Your task to perform on an android device: Add bose soundlink mini to the cart on costco.com, then select checkout. Image 0: 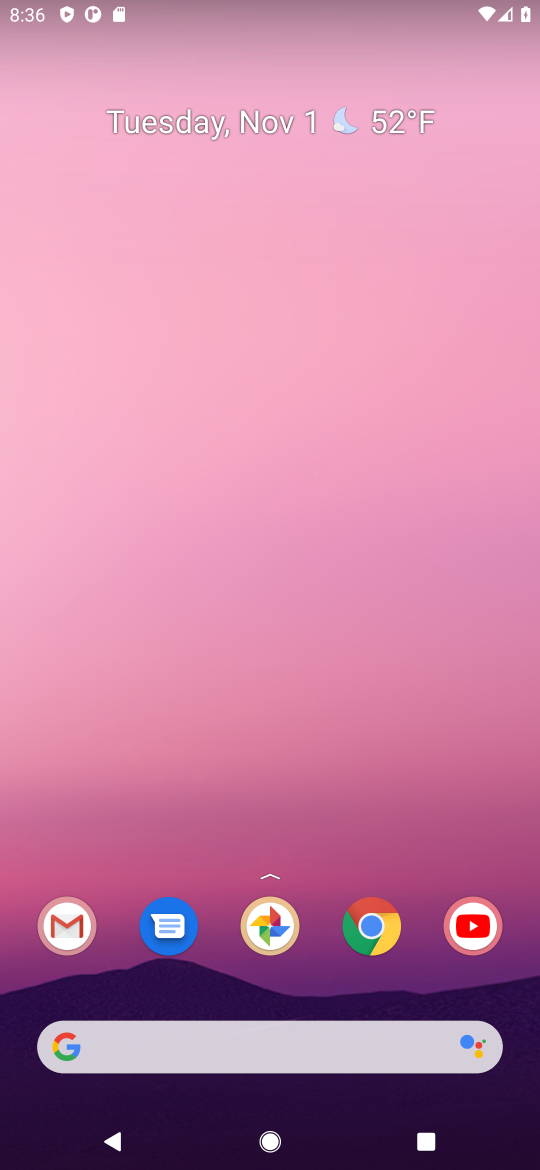
Step 0: click (353, 942)
Your task to perform on an android device: Add bose soundlink mini to the cart on costco.com, then select checkout. Image 1: 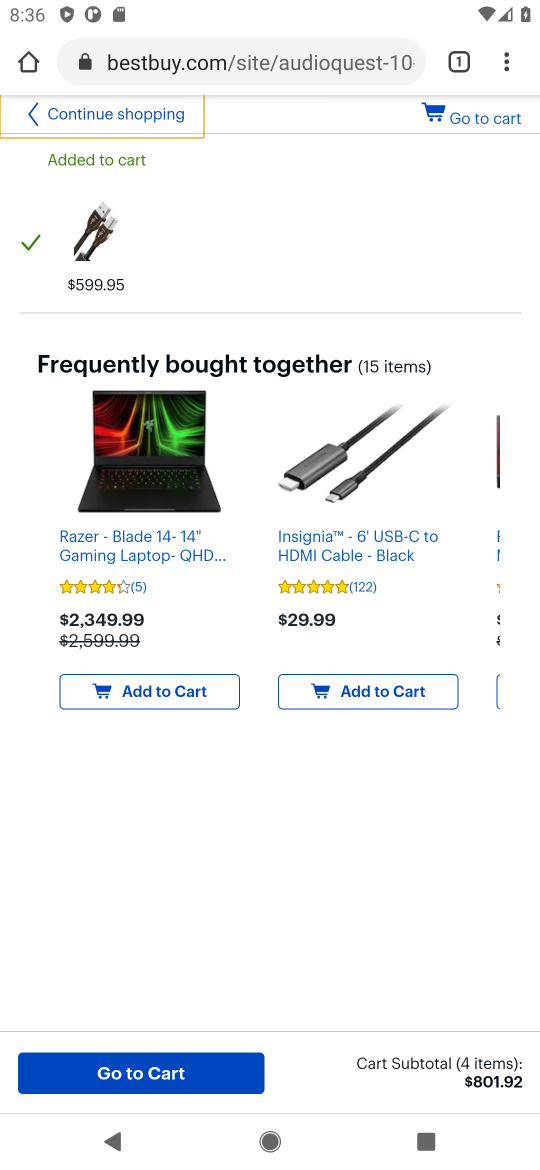
Step 1: click (148, 51)
Your task to perform on an android device: Add bose soundlink mini to the cart on costco.com, then select checkout. Image 2: 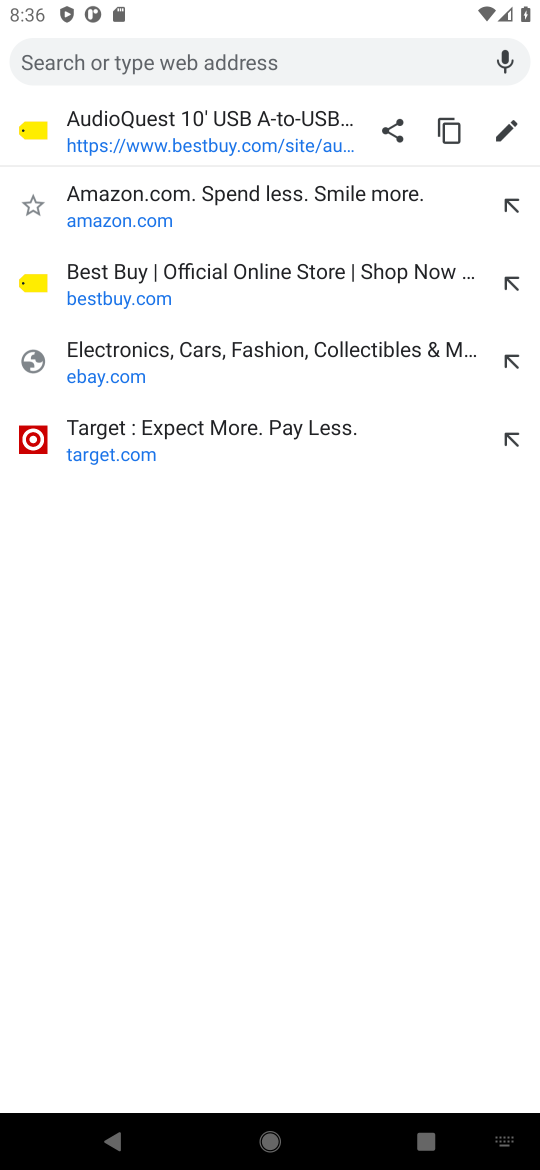
Step 2: type "costco.com"
Your task to perform on an android device: Add bose soundlink mini to the cart on costco.com, then select checkout. Image 3: 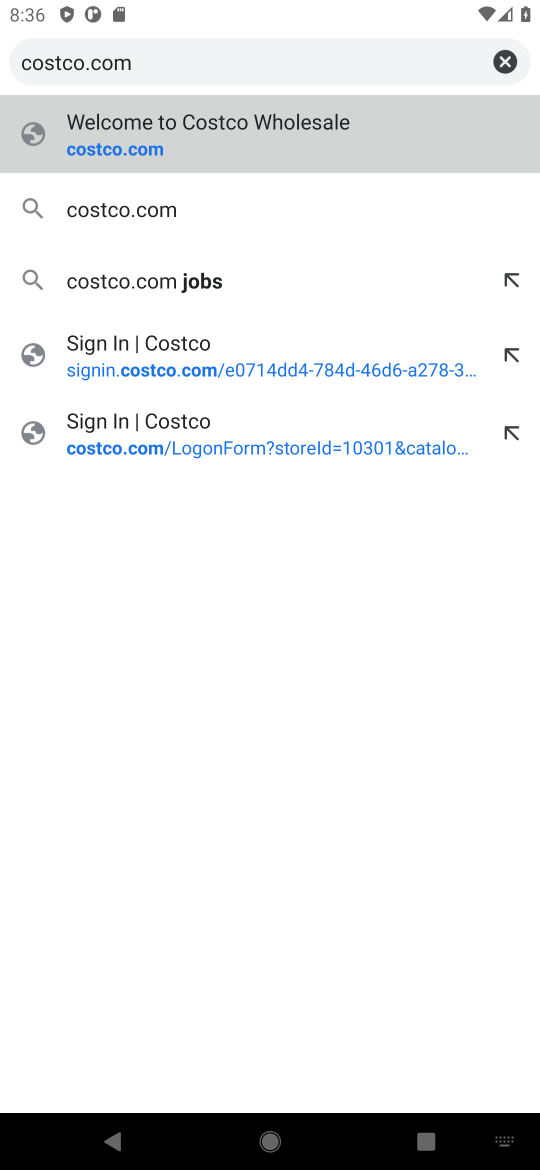
Step 3: type ""
Your task to perform on an android device: Add bose soundlink mini to the cart on costco.com, then select checkout. Image 4: 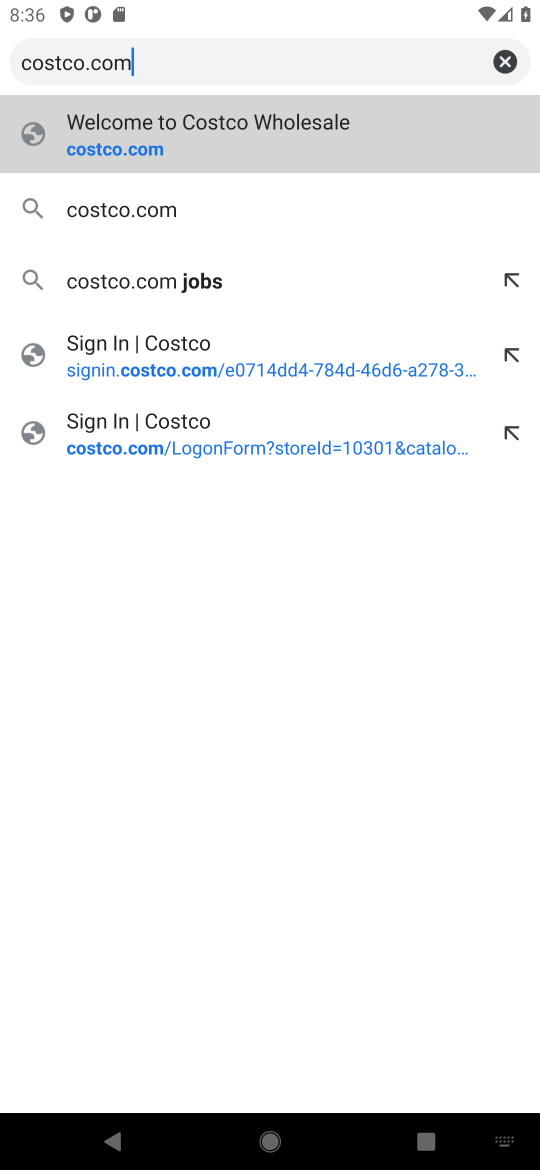
Step 4: click (114, 145)
Your task to perform on an android device: Add bose soundlink mini to the cart on costco.com, then select checkout. Image 5: 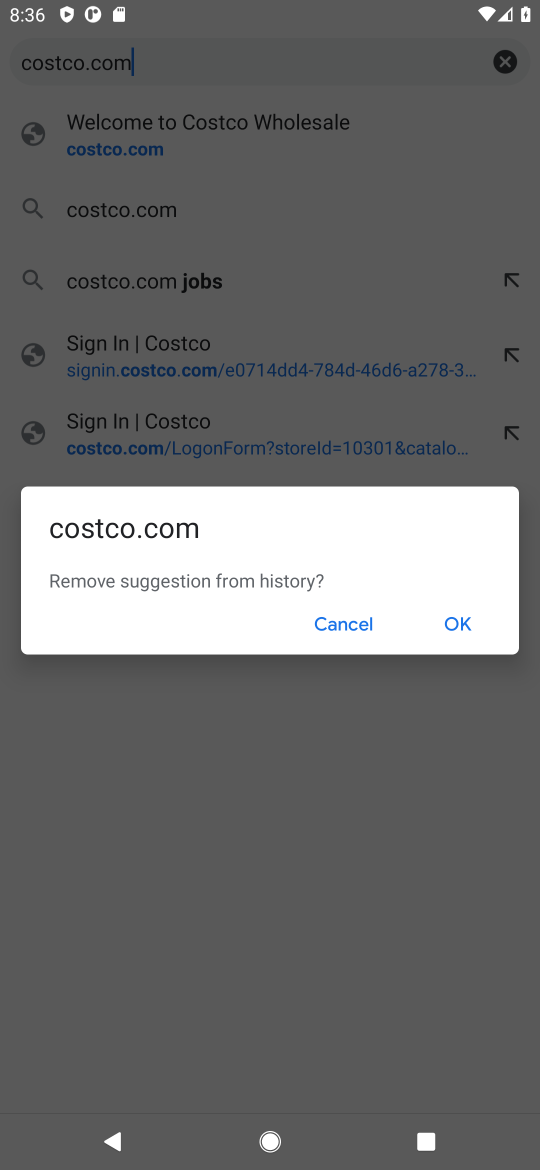
Step 5: click (452, 624)
Your task to perform on an android device: Add bose soundlink mini to the cart on costco.com, then select checkout. Image 6: 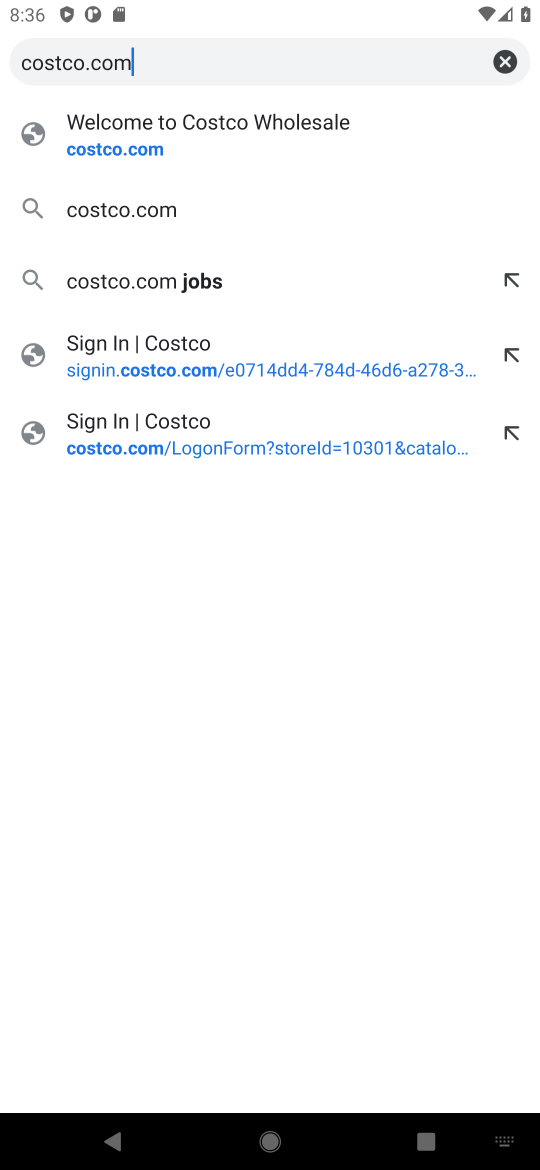
Step 6: click (123, 422)
Your task to perform on an android device: Add bose soundlink mini to the cart on costco.com, then select checkout. Image 7: 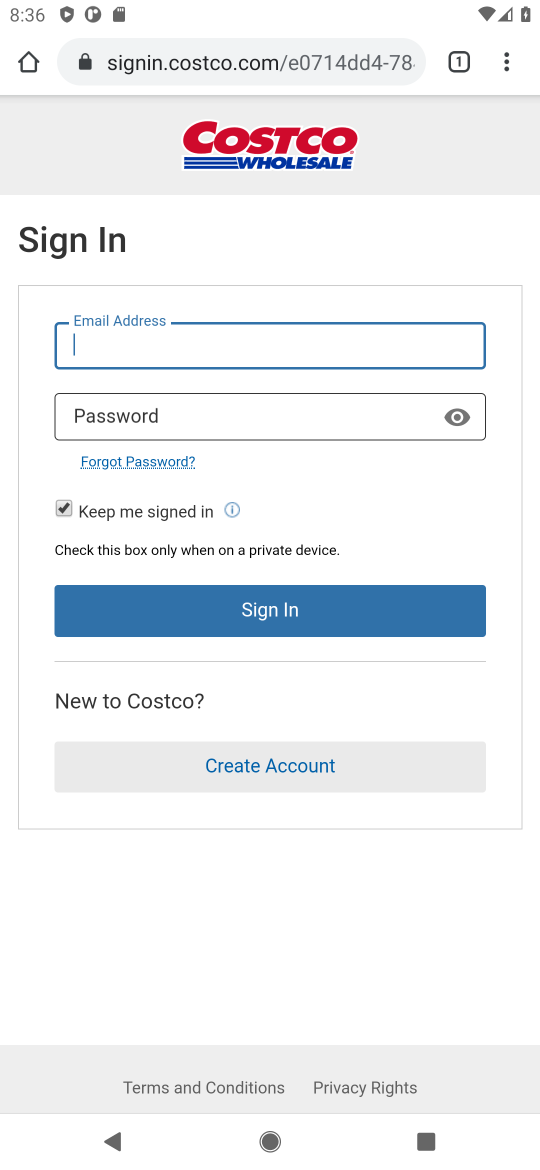
Step 7: press back button
Your task to perform on an android device: Add bose soundlink mini to the cart on costco.com, then select checkout. Image 8: 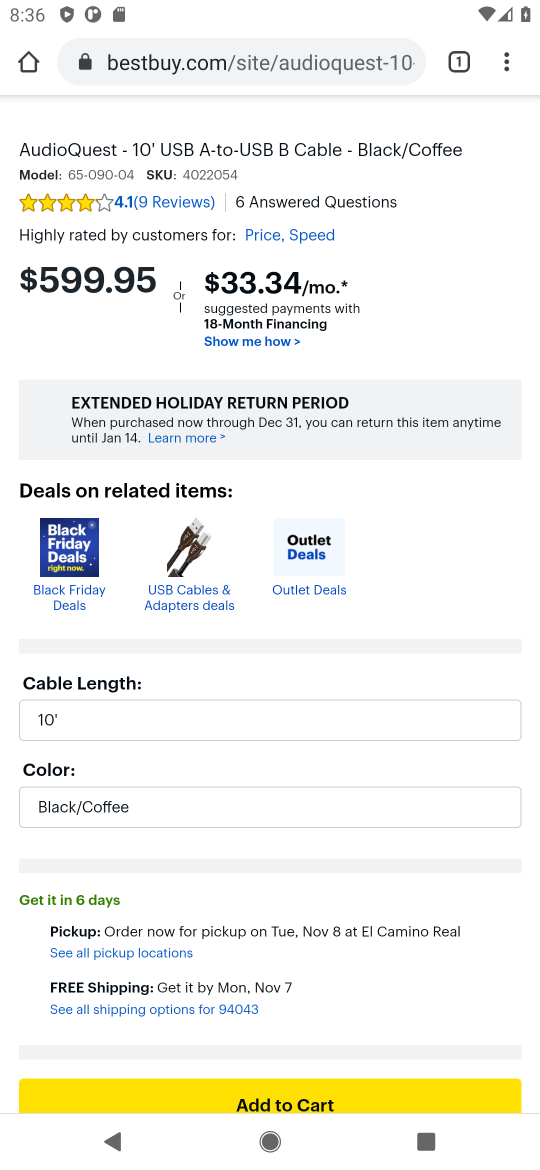
Step 8: drag from (302, 711) to (311, 30)
Your task to perform on an android device: Add bose soundlink mini to the cart on costco.com, then select checkout. Image 9: 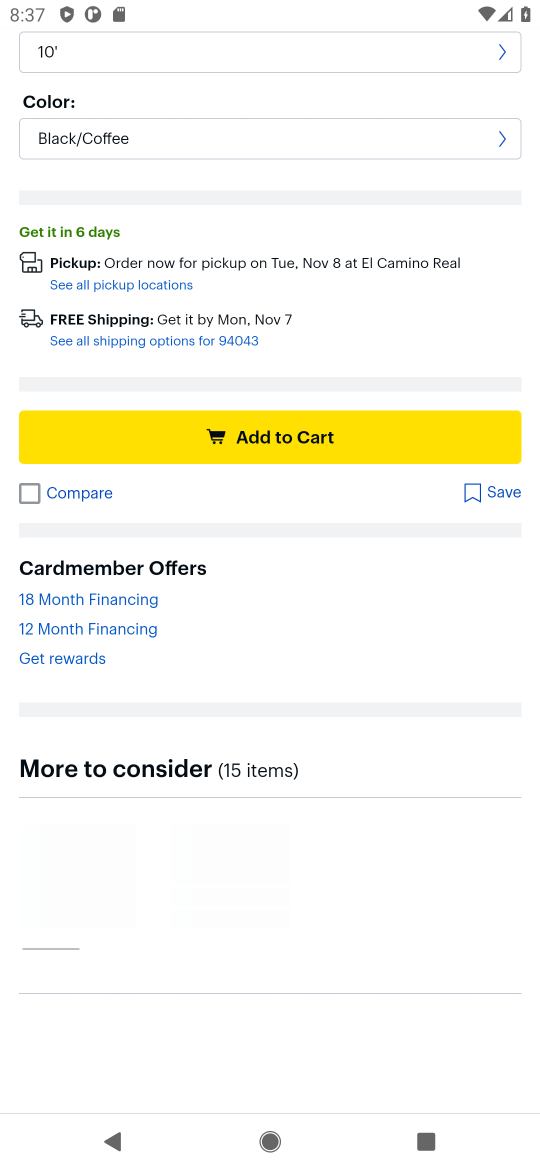
Step 9: drag from (332, 205) to (314, 903)
Your task to perform on an android device: Add bose soundlink mini to the cart on costco.com, then select checkout. Image 10: 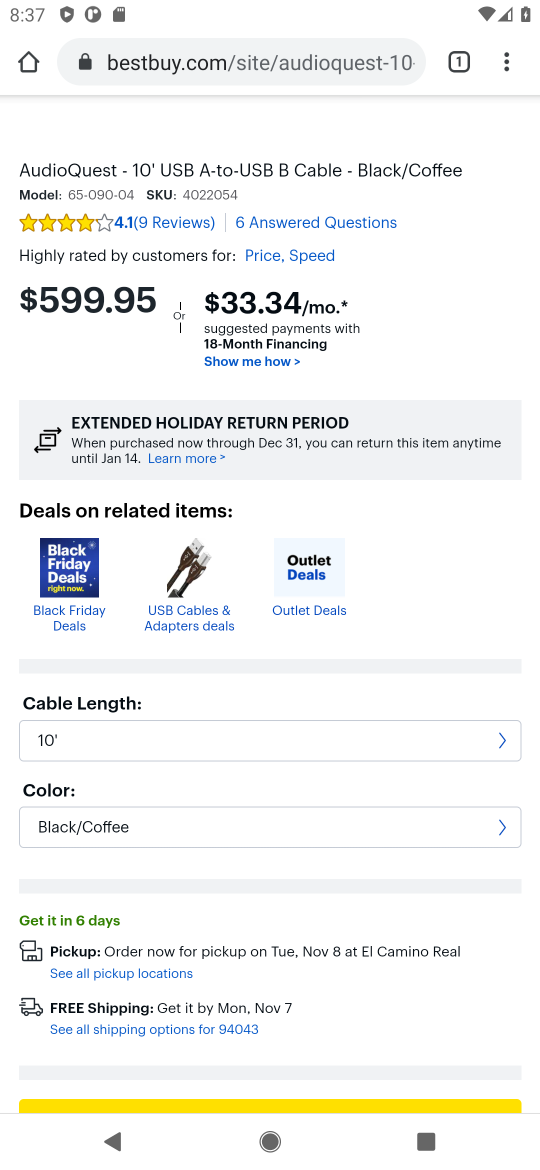
Step 10: drag from (366, 409) to (276, 847)
Your task to perform on an android device: Add bose soundlink mini to the cart on costco.com, then select checkout. Image 11: 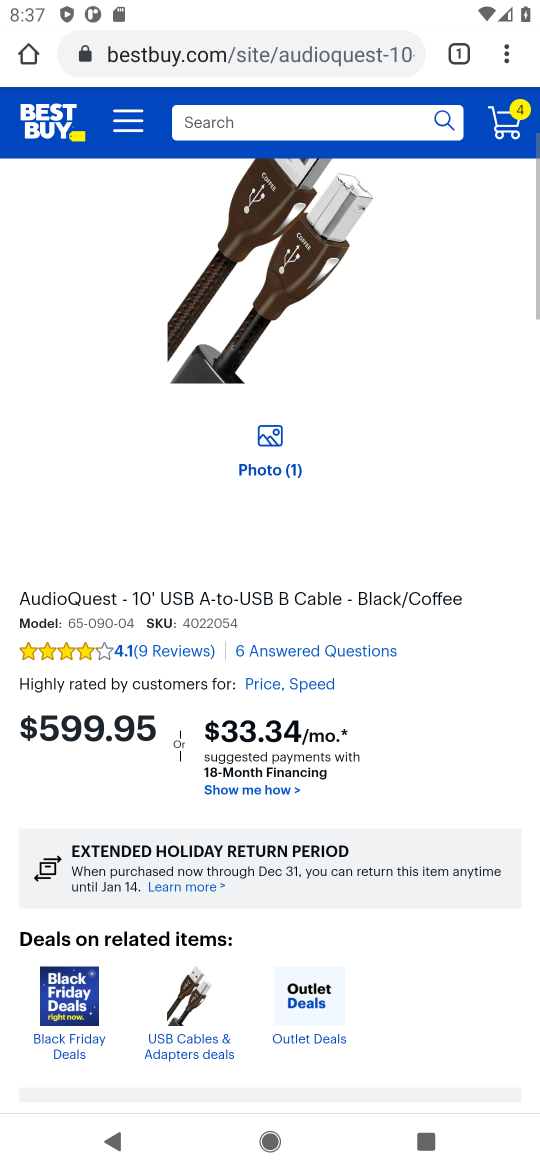
Step 11: drag from (232, 244) to (153, 867)
Your task to perform on an android device: Add bose soundlink mini to the cart on costco.com, then select checkout. Image 12: 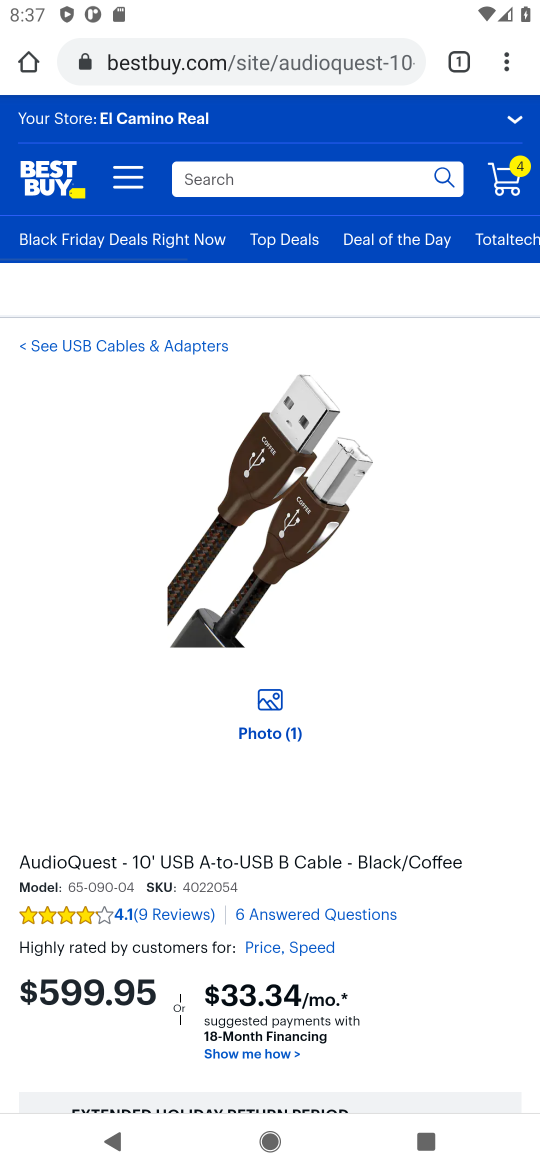
Step 12: click (312, 53)
Your task to perform on an android device: Add bose soundlink mini to the cart on costco.com, then select checkout. Image 13: 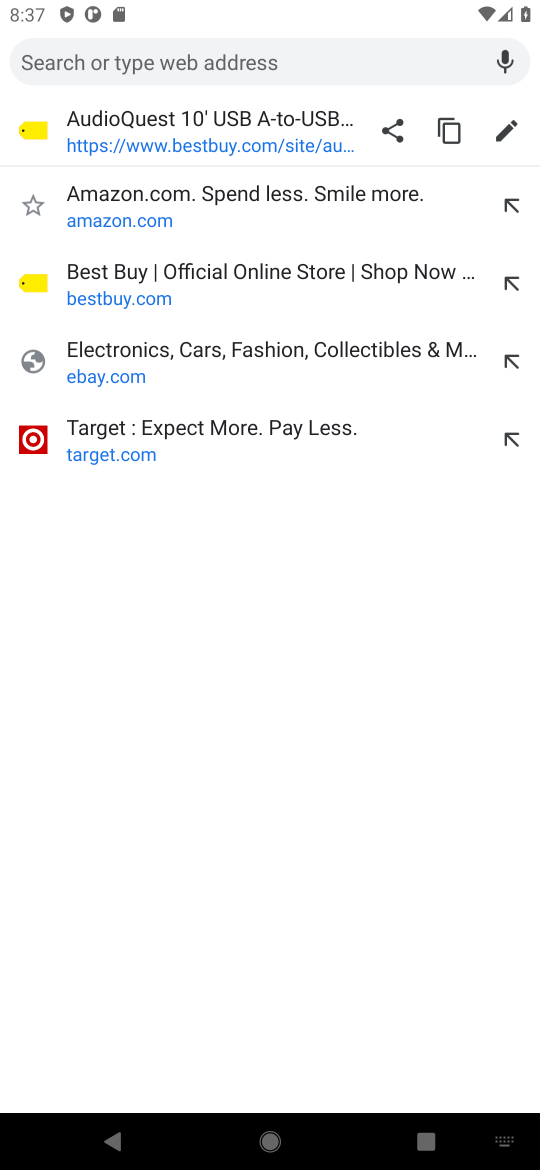
Step 13: type "costco"
Your task to perform on an android device: Add bose soundlink mini to the cart on costco.com, then select checkout. Image 14: 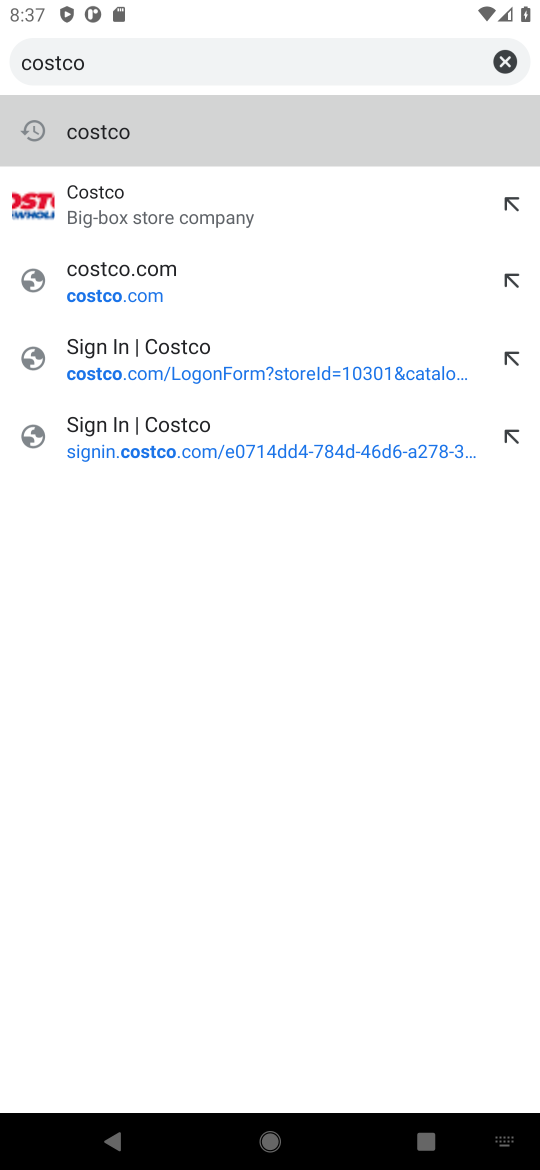
Step 14: type ""
Your task to perform on an android device: Add bose soundlink mini to the cart on costco.com, then select checkout. Image 15: 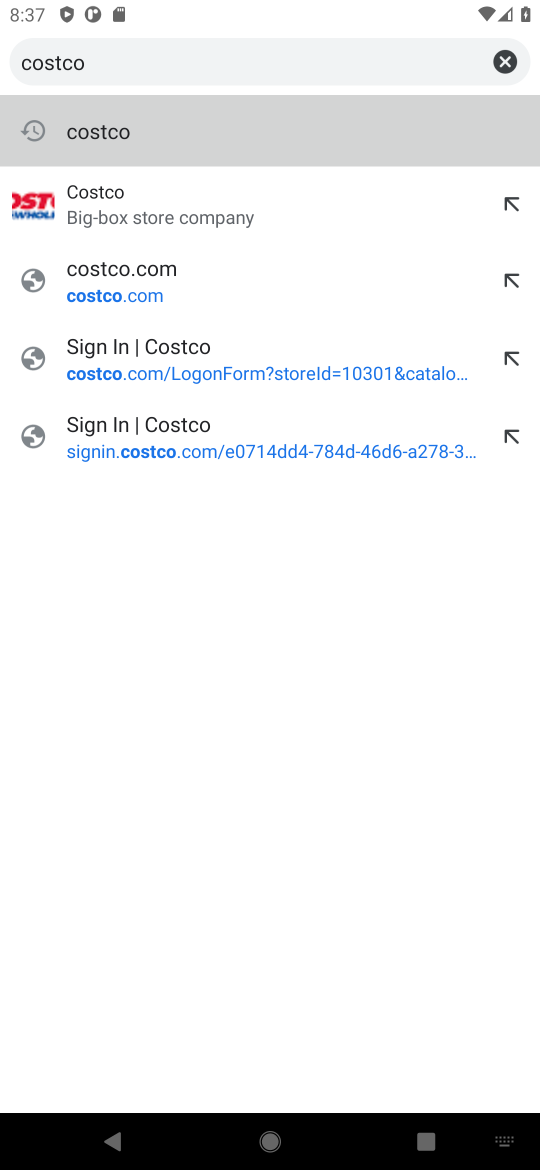
Step 15: click (120, 217)
Your task to perform on an android device: Add bose soundlink mini to the cart on costco.com, then select checkout. Image 16: 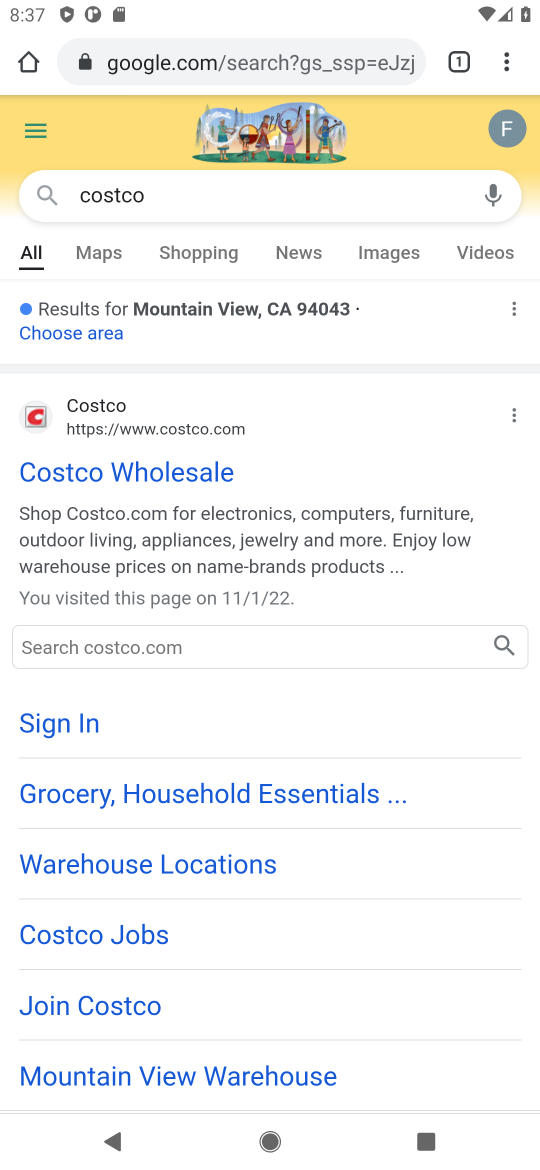
Step 16: click (139, 473)
Your task to perform on an android device: Add bose soundlink mini to the cart on costco.com, then select checkout. Image 17: 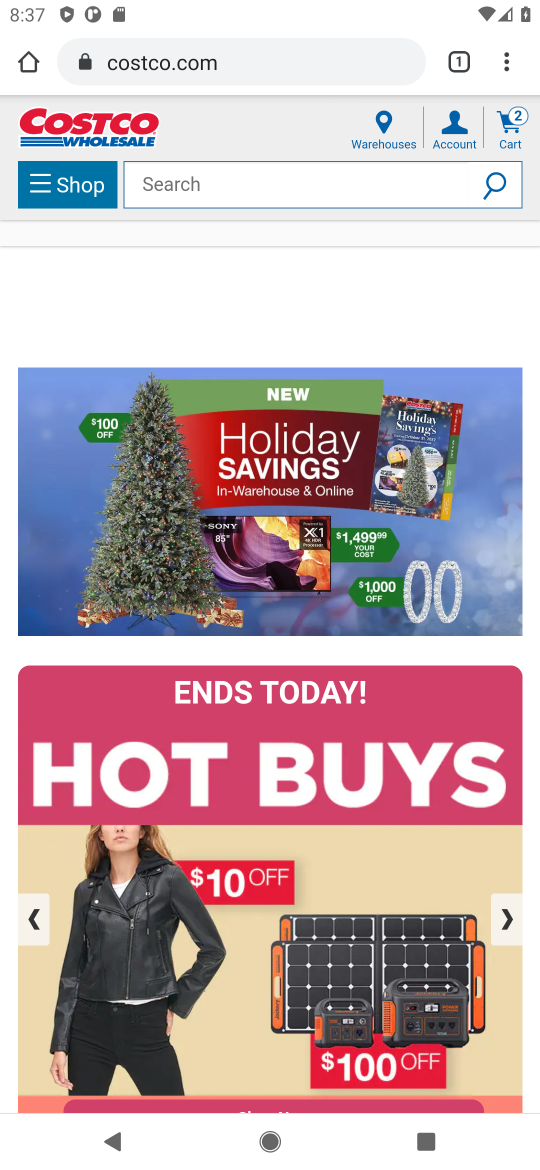
Step 17: click (233, 199)
Your task to perform on an android device: Add bose soundlink mini to the cart on costco.com, then select checkout. Image 18: 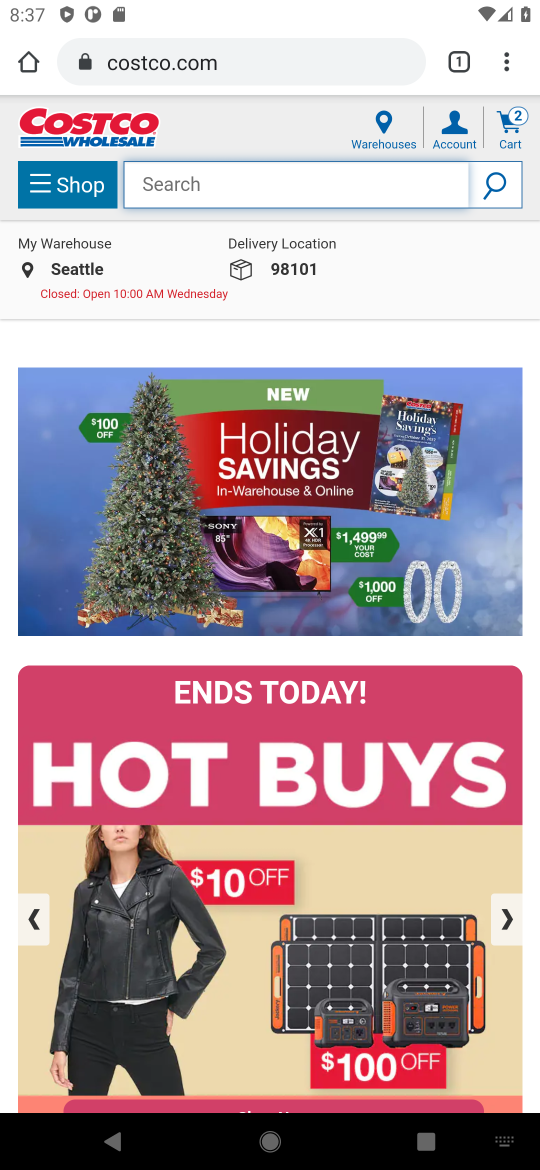
Step 18: type "bose soundlink mini"
Your task to perform on an android device: Add bose soundlink mini to the cart on costco.com, then select checkout. Image 19: 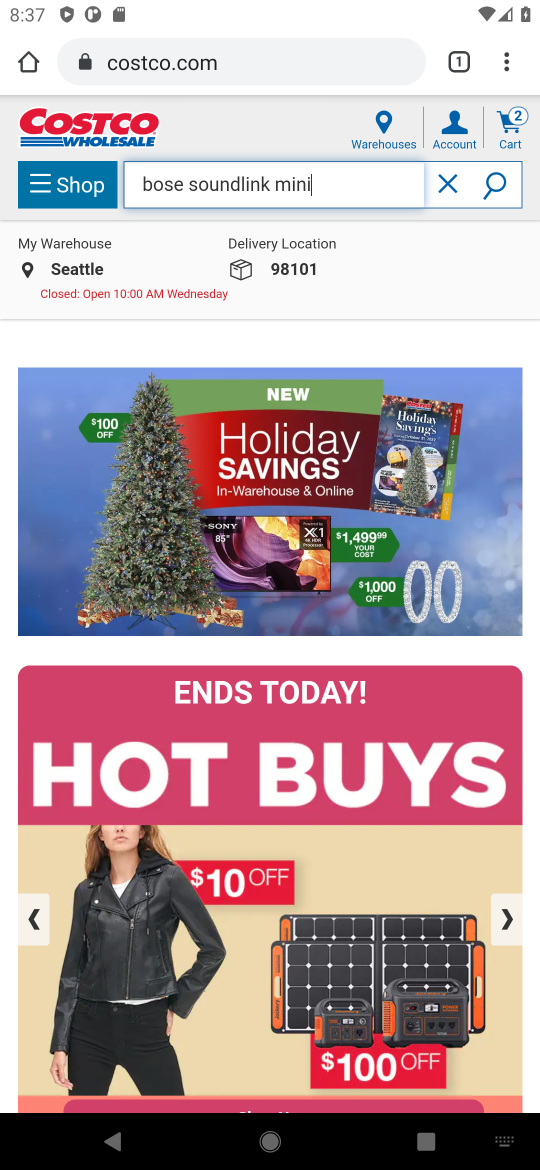
Step 19: type ""
Your task to perform on an android device: Add bose soundlink mini to the cart on costco.com, then select checkout. Image 20: 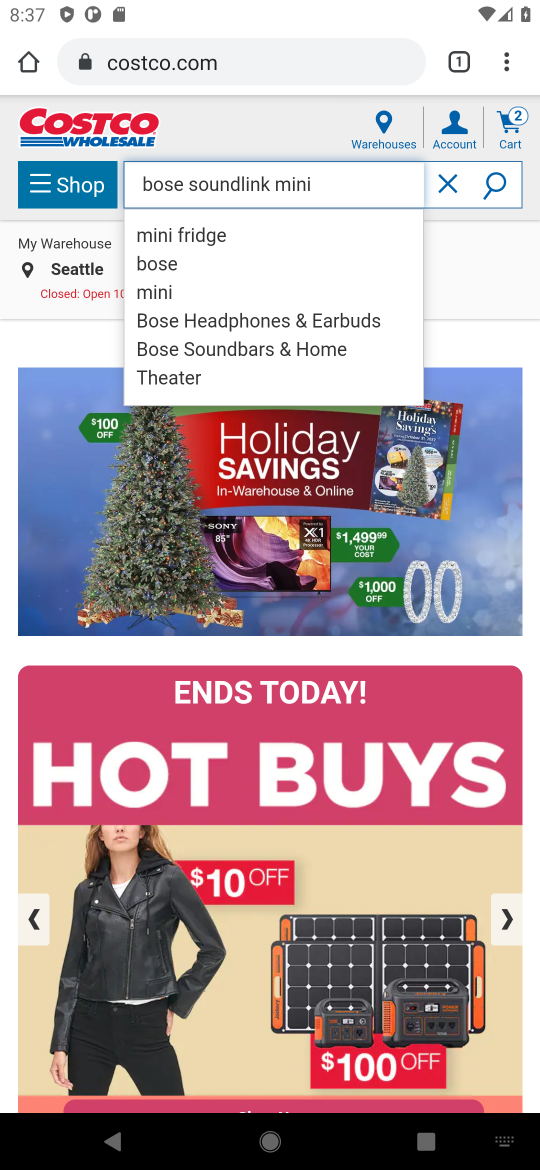
Step 20: click (210, 324)
Your task to perform on an android device: Add bose soundlink mini to the cart on costco.com, then select checkout. Image 21: 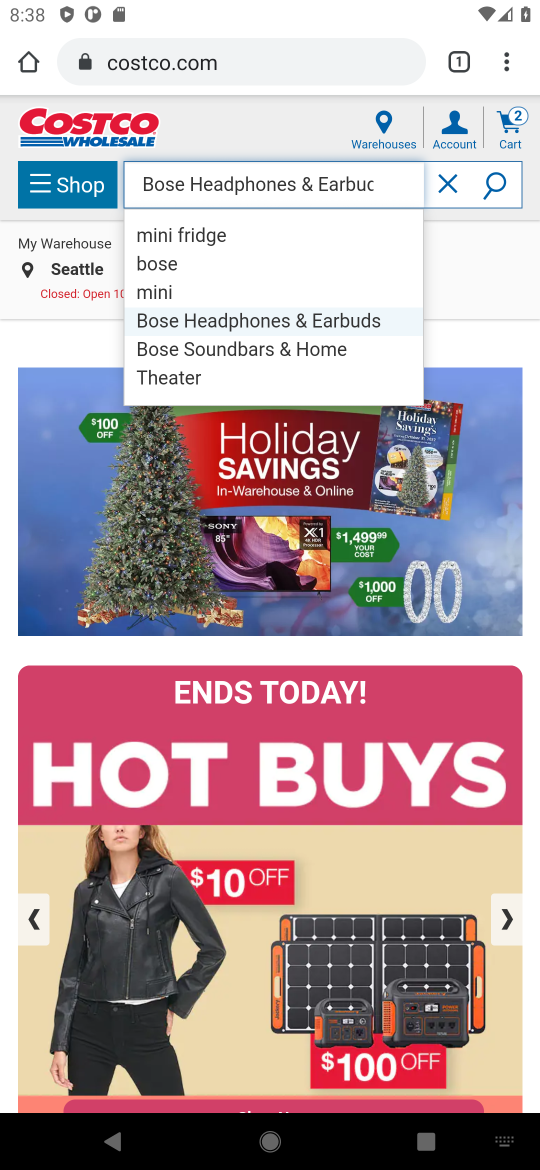
Step 21: click (204, 355)
Your task to perform on an android device: Add bose soundlink mini to the cart on costco.com, then select checkout. Image 22: 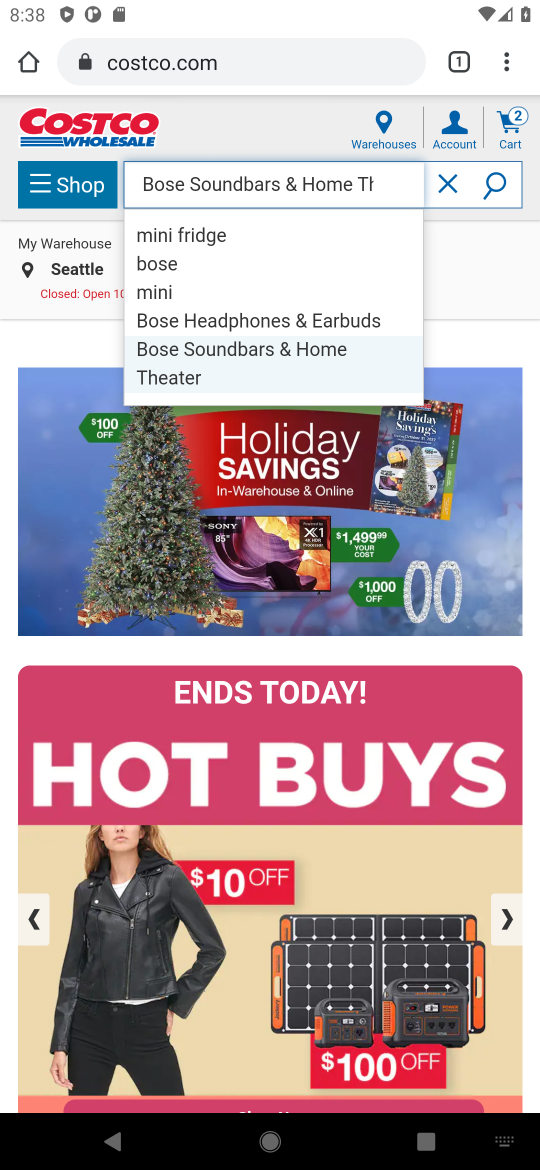
Step 22: click (205, 356)
Your task to perform on an android device: Add bose soundlink mini to the cart on costco.com, then select checkout. Image 23: 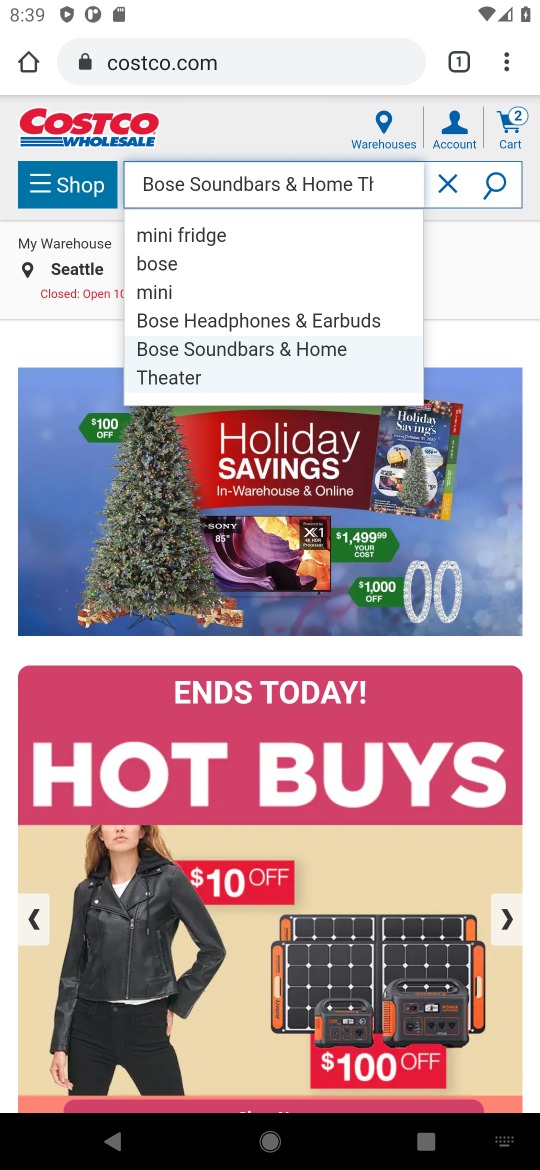
Step 23: click (234, 348)
Your task to perform on an android device: Add bose soundlink mini to the cart on costco.com, then select checkout. Image 24: 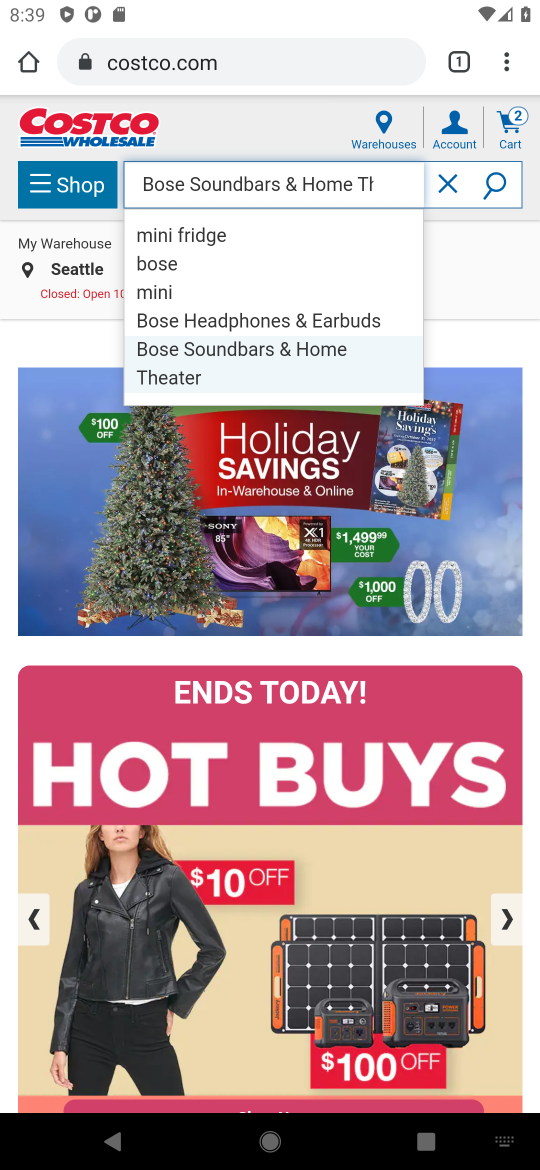
Step 24: click (503, 180)
Your task to perform on an android device: Add bose soundlink mini to the cart on costco.com, then select checkout. Image 25: 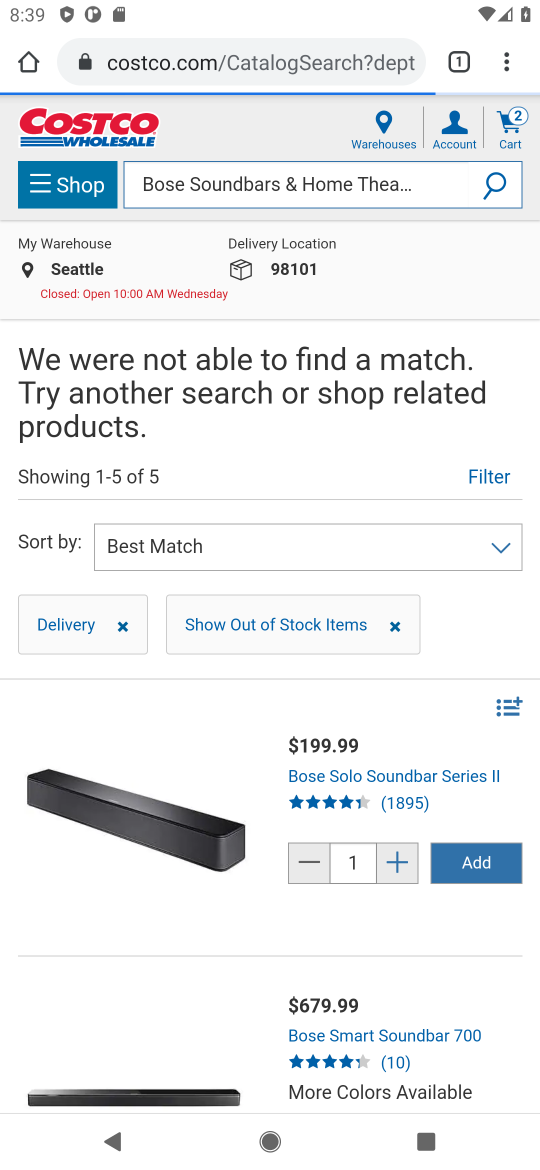
Step 25: drag from (211, 896) to (306, 143)
Your task to perform on an android device: Add bose soundlink mini to the cart on costco.com, then select checkout. Image 26: 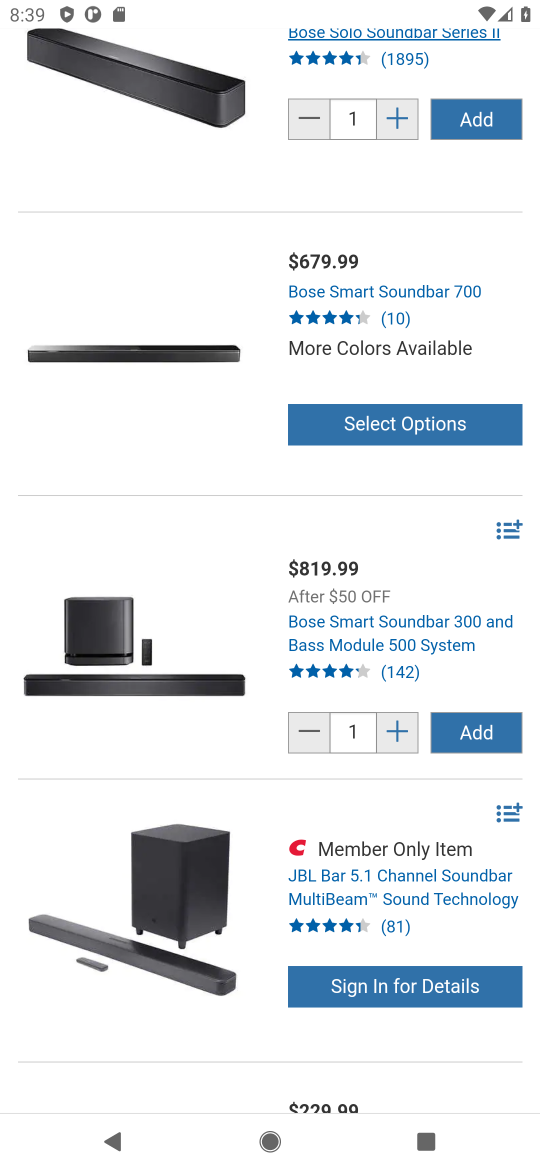
Step 26: drag from (226, 905) to (302, 331)
Your task to perform on an android device: Add bose soundlink mini to the cart on costco.com, then select checkout. Image 27: 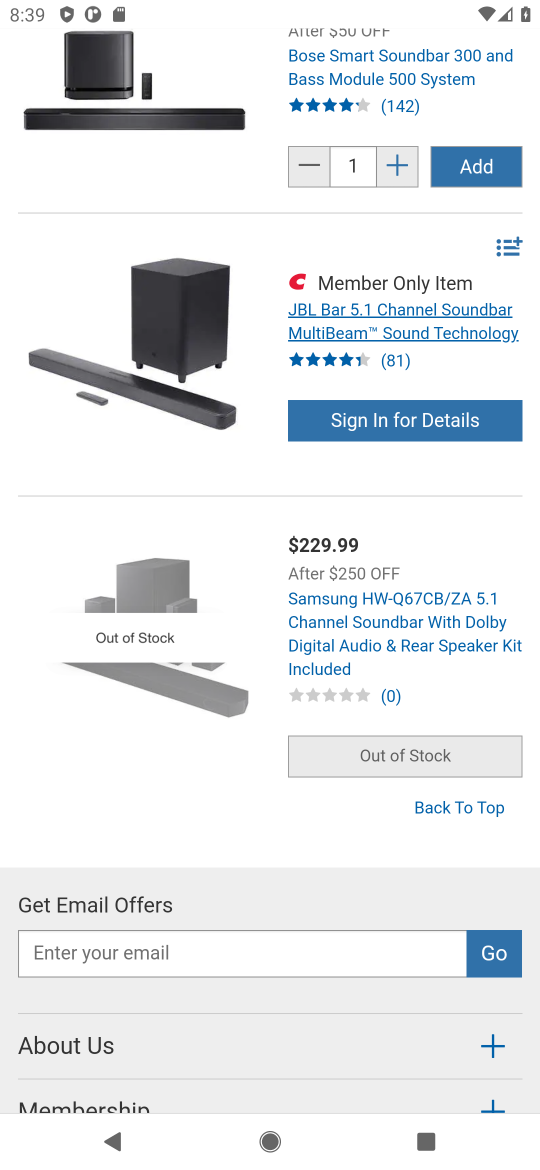
Step 27: drag from (302, 331) to (311, 858)
Your task to perform on an android device: Add bose soundlink mini to the cart on costco.com, then select checkout. Image 28: 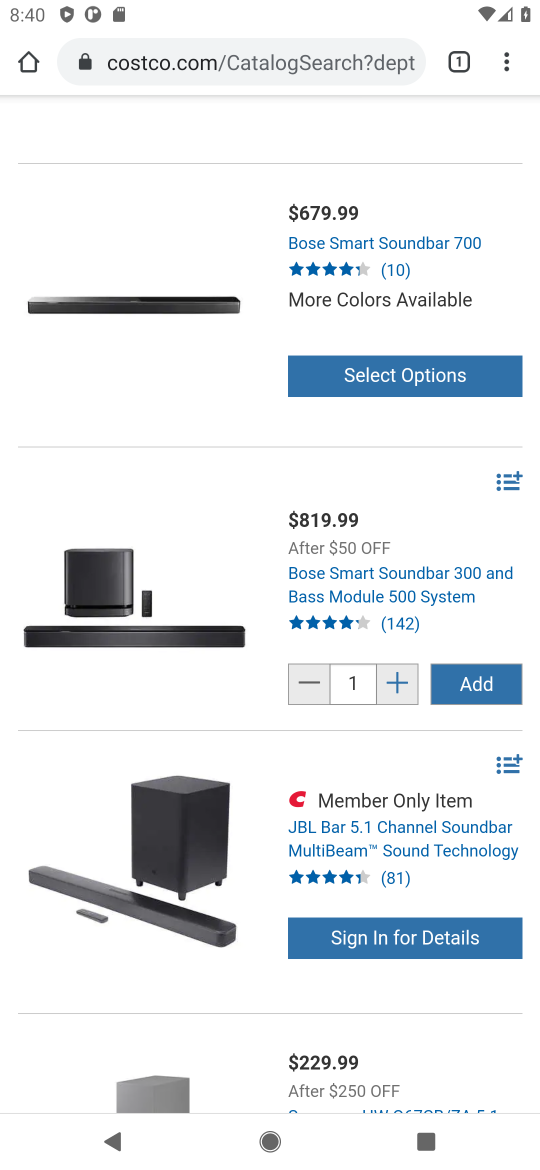
Step 28: click (320, 579)
Your task to perform on an android device: Add bose soundlink mini to the cart on costco.com, then select checkout. Image 29: 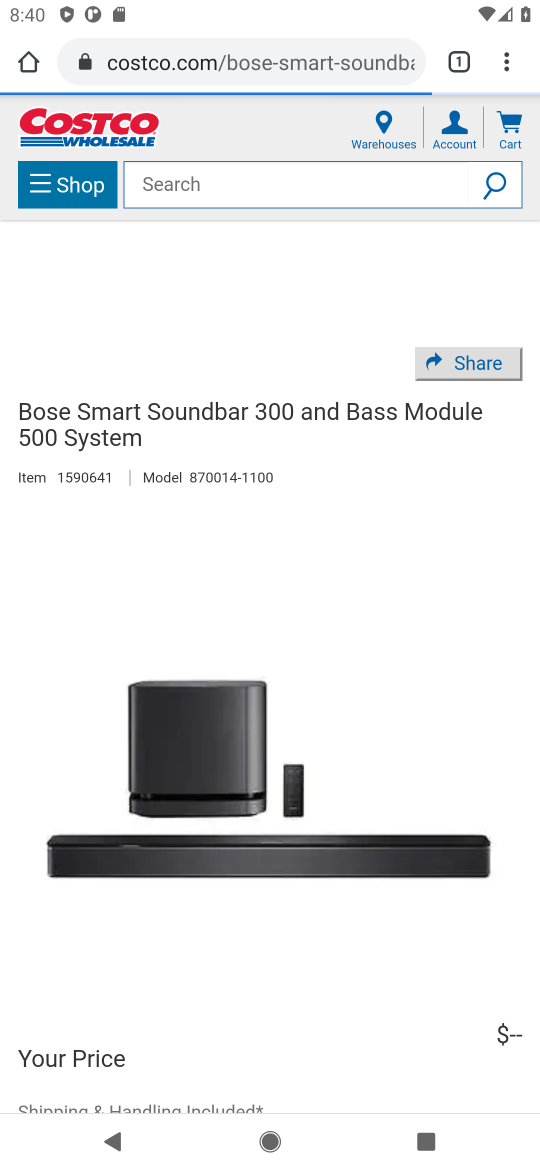
Step 29: drag from (293, 938) to (310, 269)
Your task to perform on an android device: Add bose soundlink mini to the cart on costco.com, then select checkout. Image 30: 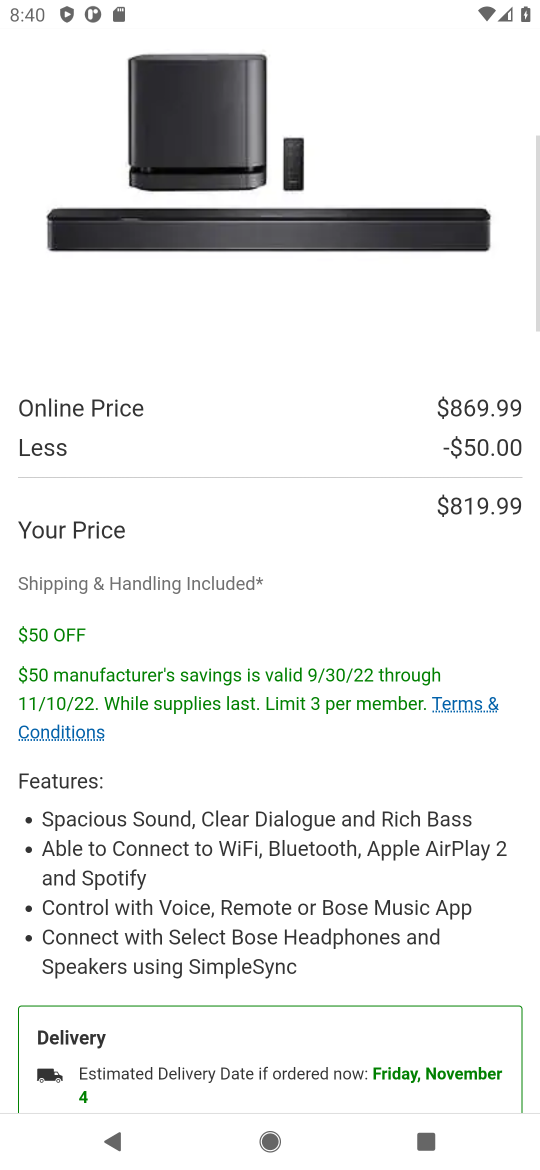
Step 30: drag from (251, 739) to (255, 426)
Your task to perform on an android device: Add bose soundlink mini to the cart on costco.com, then select checkout. Image 31: 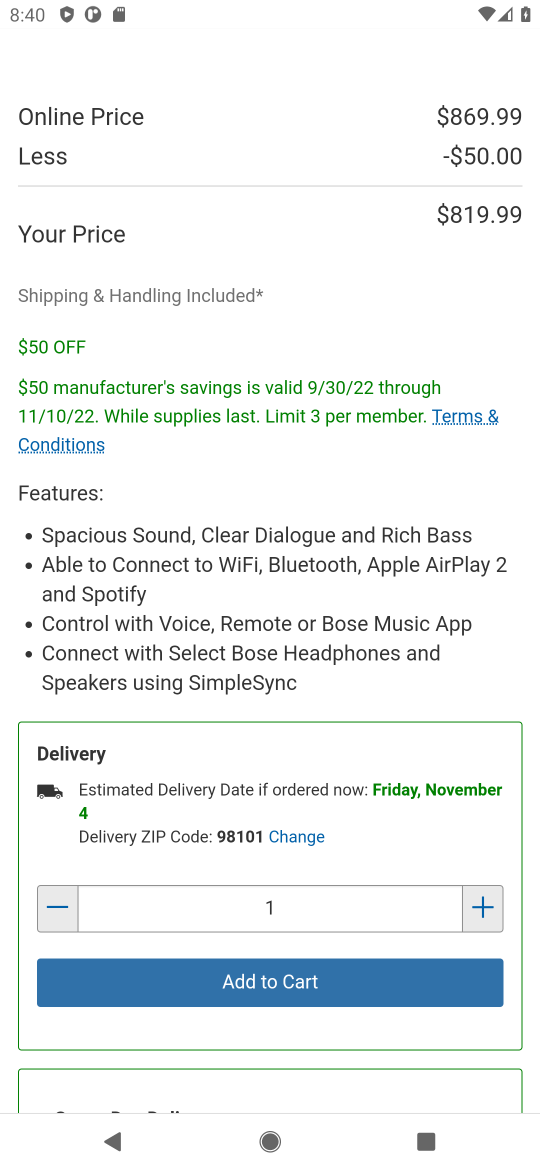
Step 31: click (247, 987)
Your task to perform on an android device: Add bose soundlink mini to the cart on costco.com, then select checkout. Image 32: 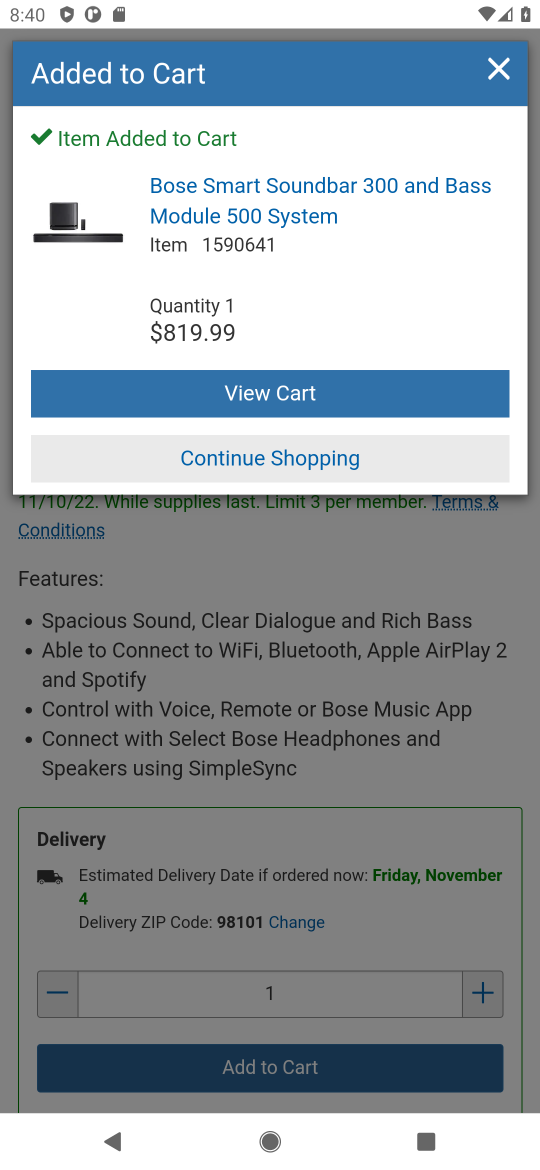
Step 32: click (274, 413)
Your task to perform on an android device: Add bose soundlink mini to the cart on costco.com, then select checkout. Image 33: 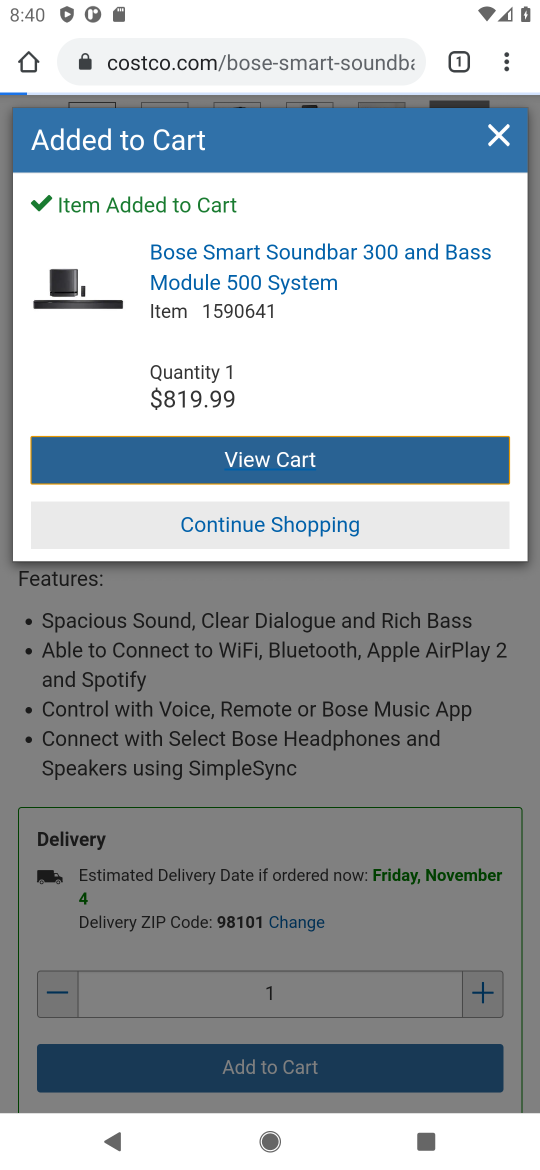
Step 33: click (248, 462)
Your task to perform on an android device: Add bose soundlink mini to the cart on costco.com, then select checkout. Image 34: 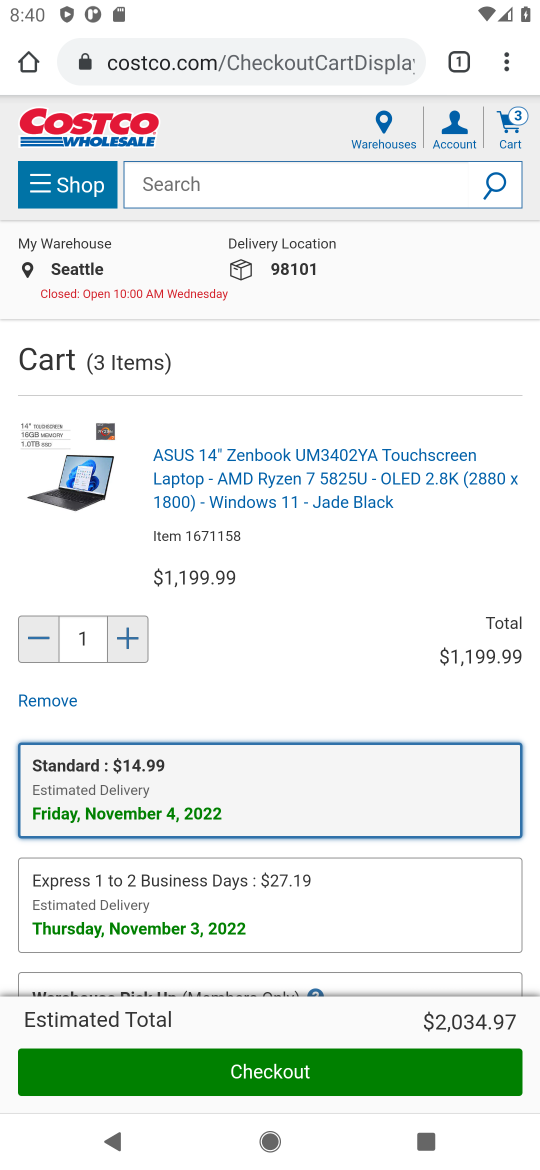
Step 34: click (279, 1069)
Your task to perform on an android device: Add bose soundlink mini to the cart on costco.com, then select checkout. Image 35: 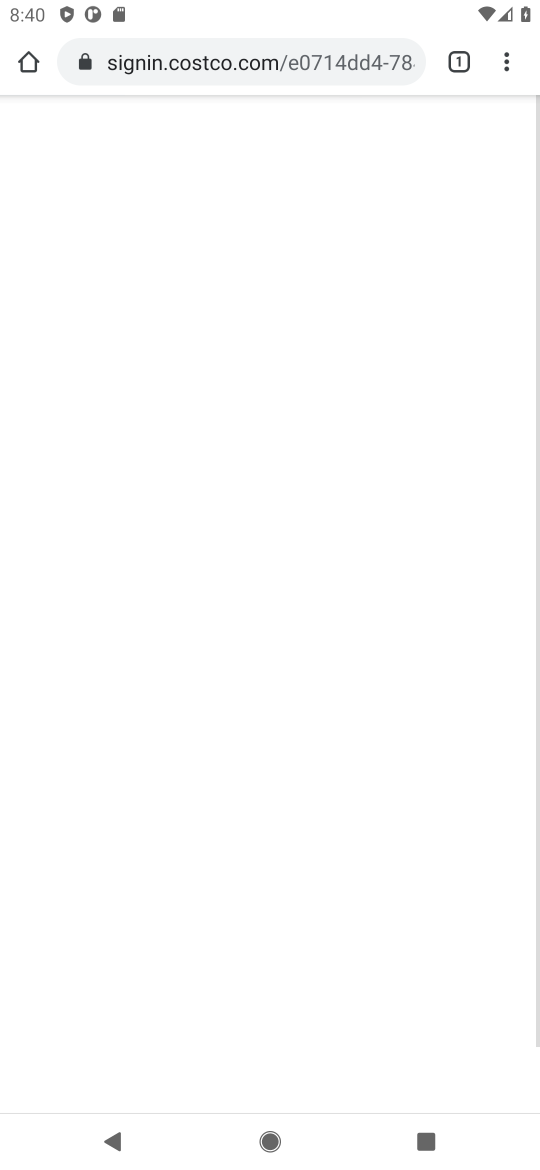
Step 35: task complete